Your task to perform on an android device: When is my next appointment? Image 0: 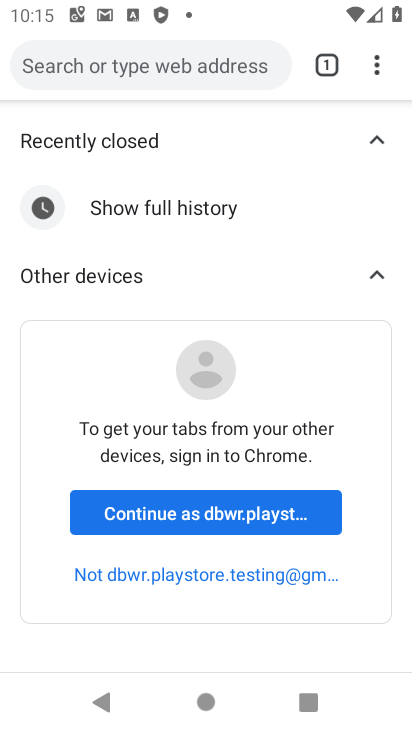
Step 0: press home button
Your task to perform on an android device: When is my next appointment? Image 1: 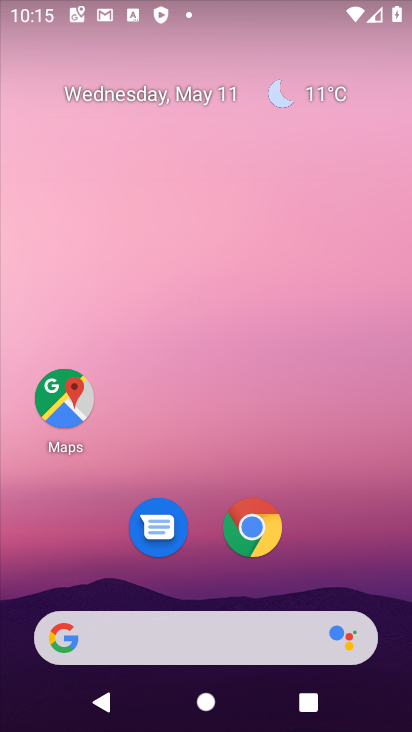
Step 1: drag from (356, 495) to (338, 34)
Your task to perform on an android device: When is my next appointment? Image 2: 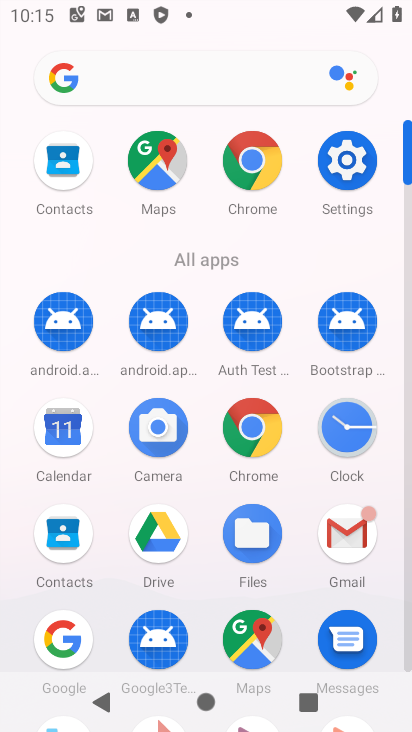
Step 2: click (56, 432)
Your task to perform on an android device: When is my next appointment? Image 3: 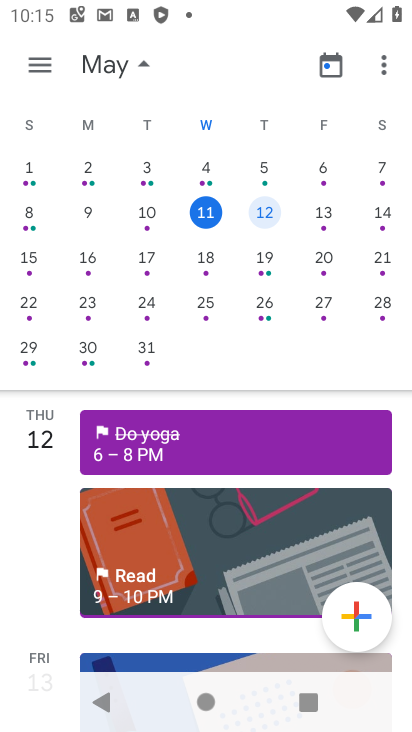
Step 3: click (332, 219)
Your task to perform on an android device: When is my next appointment? Image 4: 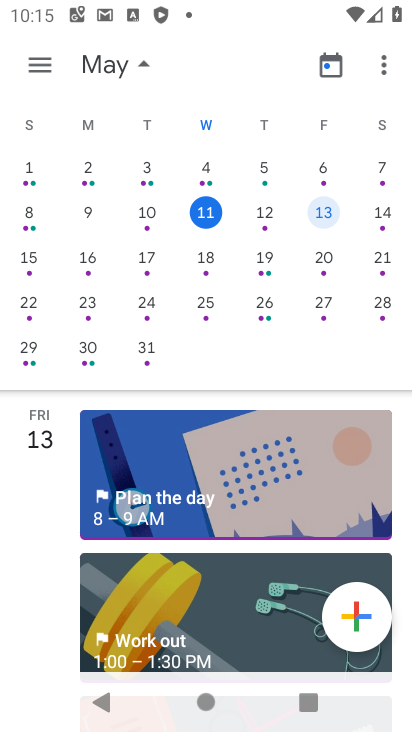
Step 4: task complete